Your task to perform on an android device: allow notifications from all sites in the chrome app Image 0: 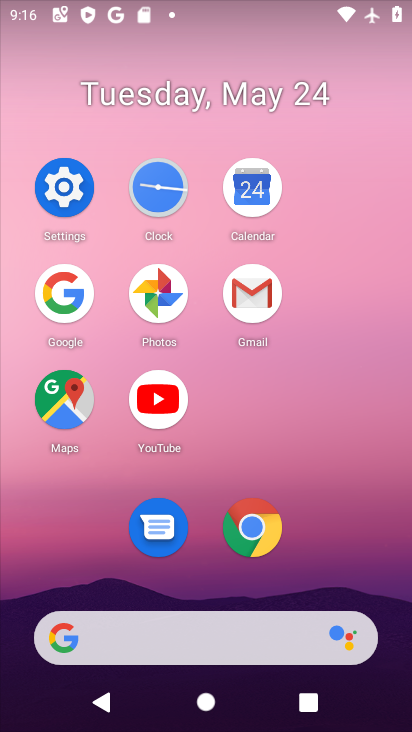
Step 0: click (276, 533)
Your task to perform on an android device: allow notifications from all sites in the chrome app Image 1: 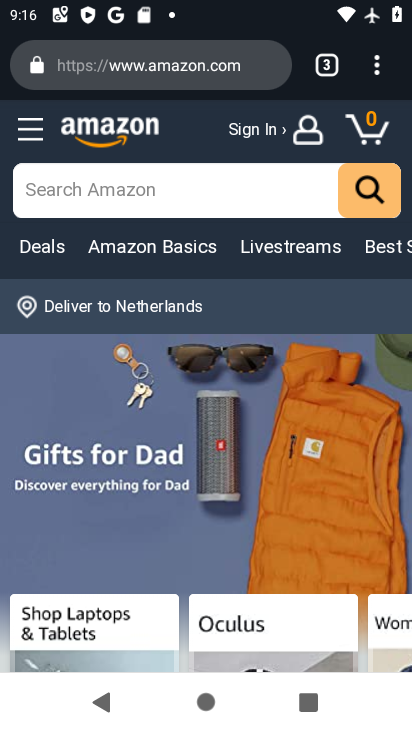
Step 1: click (381, 55)
Your task to perform on an android device: allow notifications from all sites in the chrome app Image 2: 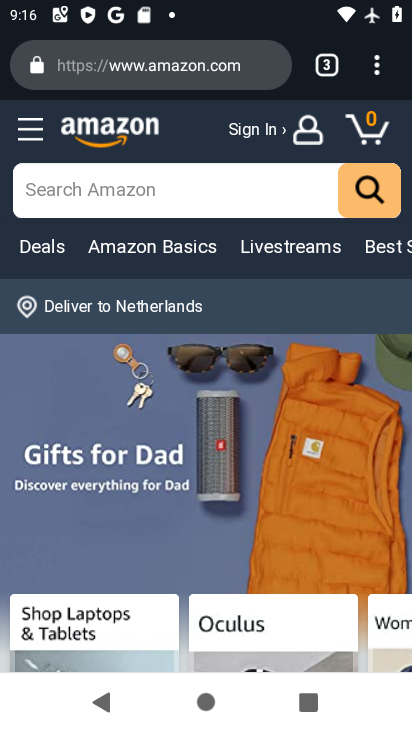
Step 2: click (381, 70)
Your task to perform on an android device: allow notifications from all sites in the chrome app Image 3: 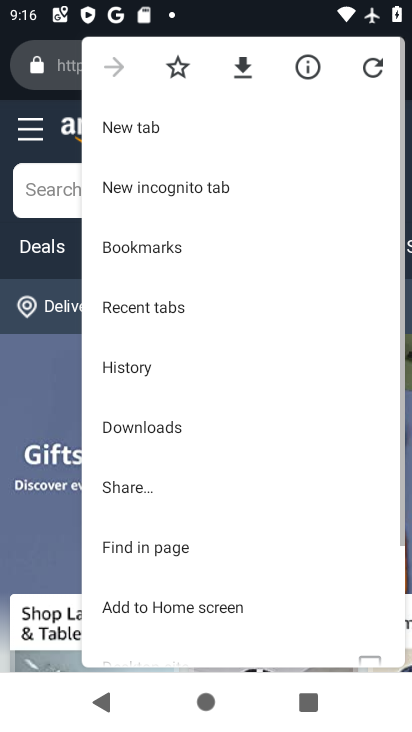
Step 3: drag from (225, 381) to (262, 70)
Your task to perform on an android device: allow notifications from all sites in the chrome app Image 4: 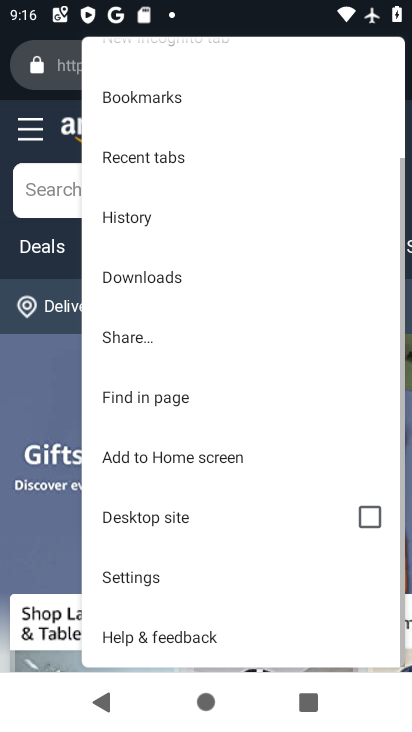
Step 4: click (157, 579)
Your task to perform on an android device: allow notifications from all sites in the chrome app Image 5: 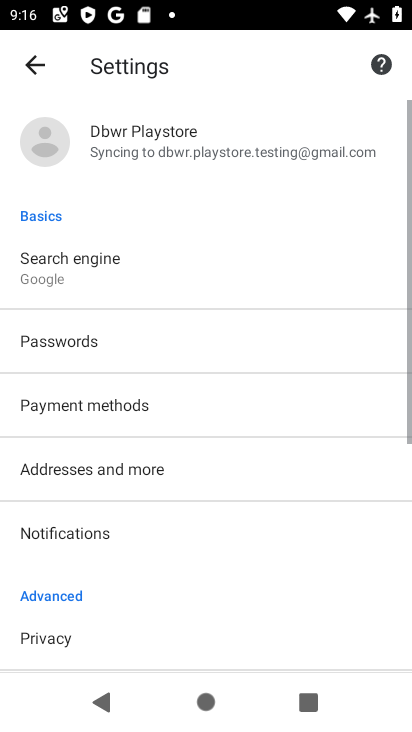
Step 5: drag from (257, 545) to (254, 184)
Your task to perform on an android device: allow notifications from all sites in the chrome app Image 6: 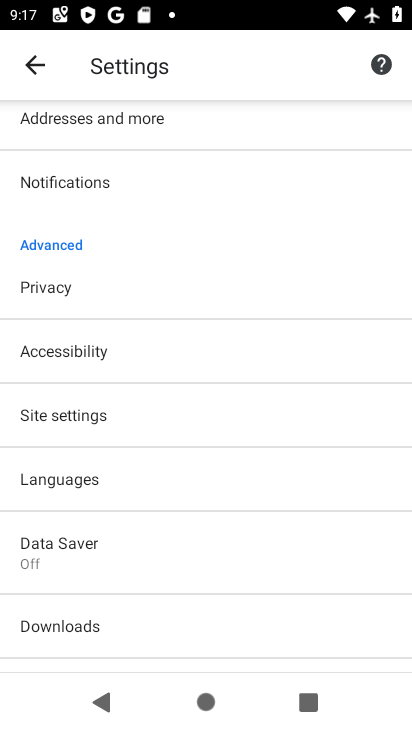
Step 6: drag from (165, 605) to (202, 264)
Your task to perform on an android device: allow notifications from all sites in the chrome app Image 7: 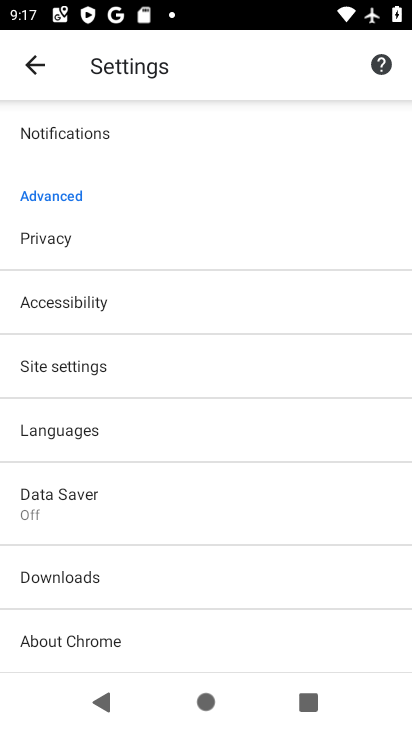
Step 7: drag from (144, 214) to (156, 613)
Your task to perform on an android device: allow notifications from all sites in the chrome app Image 8: 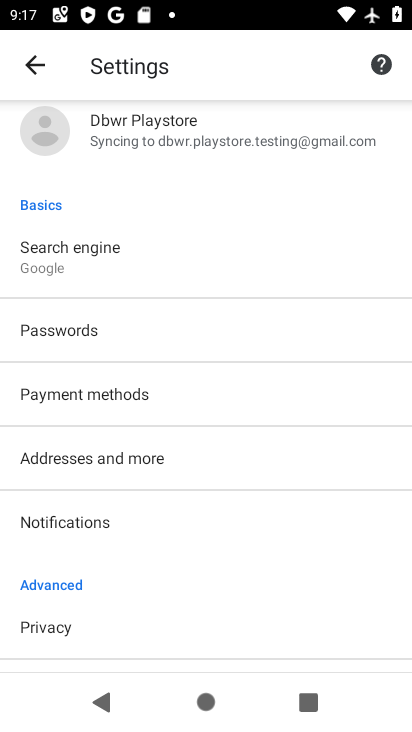
Step 8: click (155, 531)
Your task to perform on an android device: allow notifications from all sites in the chrome app Image 9: 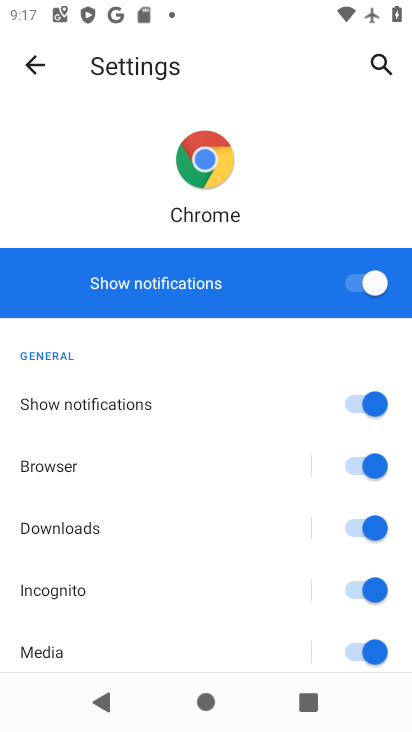
Step 9: task complete